Your task to perform on an android device: Do I have any events today? Image 0: 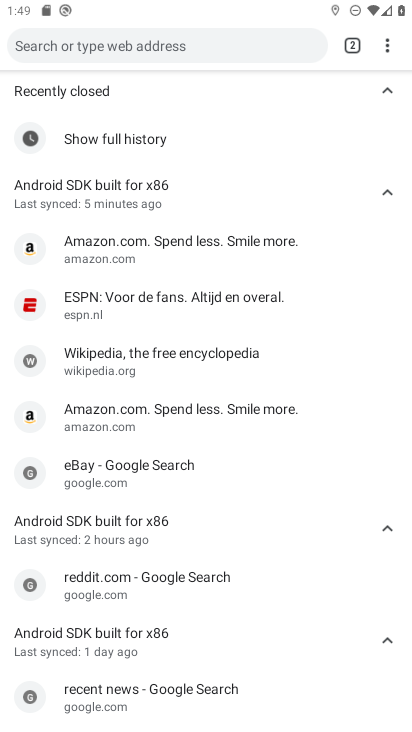
Step 0: press home button
Your task to perform on an android device: Do I have any events today? Image 1: 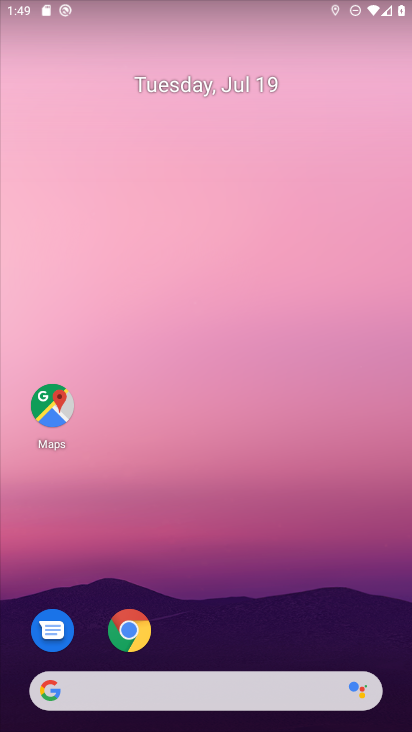
Step 1: drag from (142, 683) to (311, 84)
Your task to perform on an android device: Do I have any events today? Image 2: 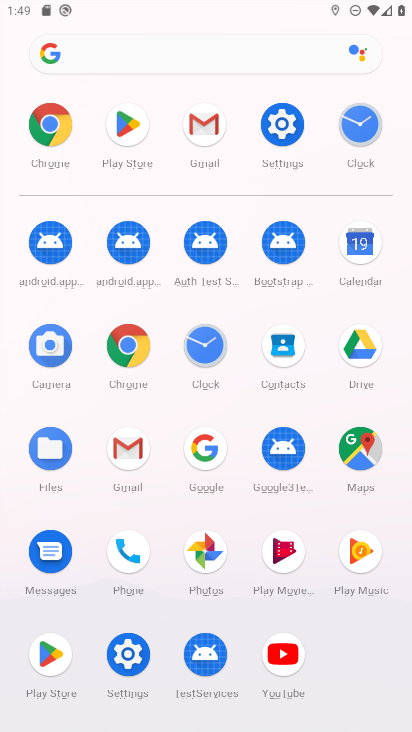
Step 2: click (362, 255)
Your task to perform on an android device: Do I have any events today? Image 3: 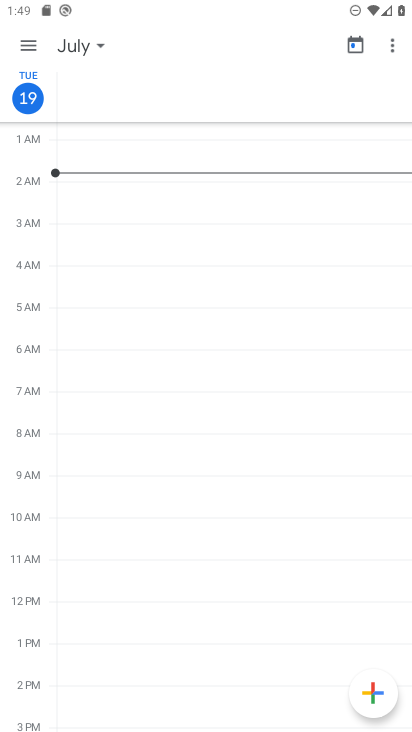
Step 3: click (76, 48)
Your task to perform on an android device: Do I have any events today? Image 4: 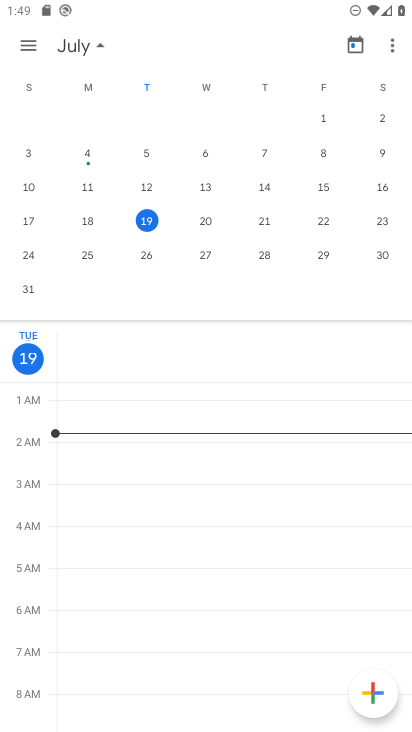
Step 4: click (154, 227)
Your task to perform on an android device: Do I have any events today? Image 5: 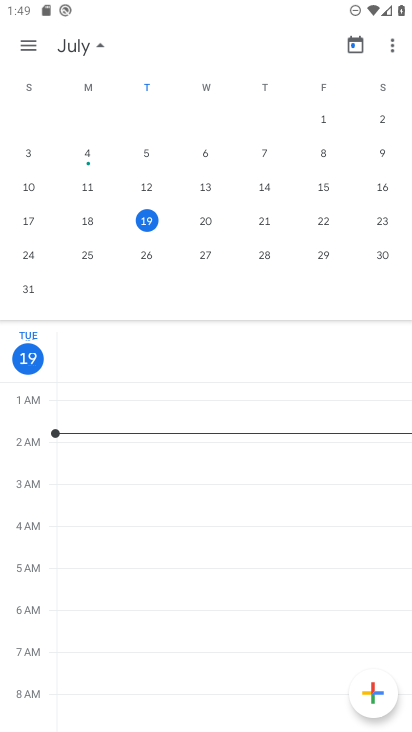
Step 5: click (28, 41)
Your task to perform on an android device: Do I have any events today? Image 6: 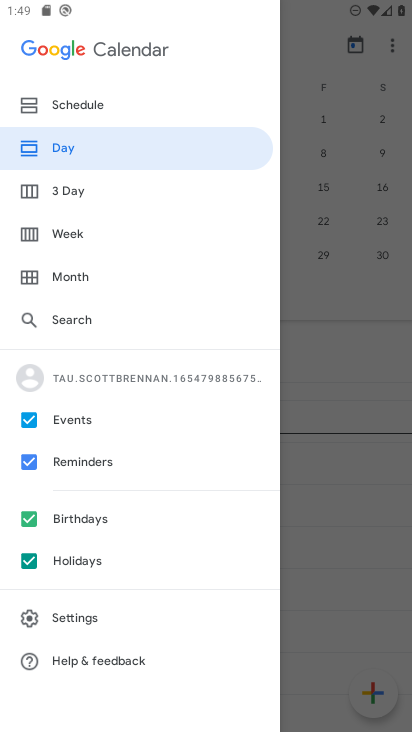
Step 6: click (95, 110)
Your task to perform on an android device: Do I have any events today? Image 7: 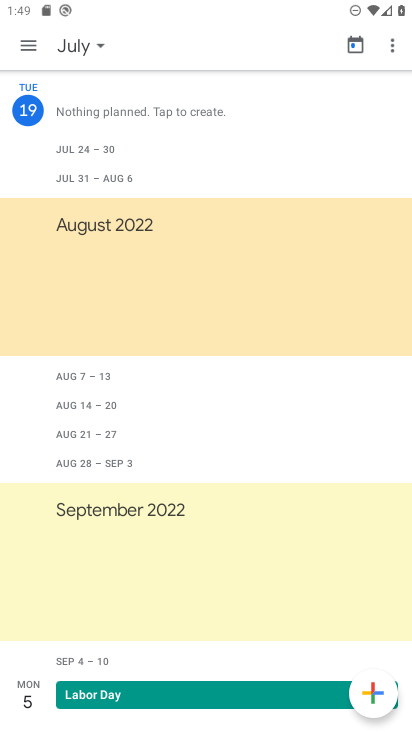
Step 7: task complete